Your task to perform on an android device: turn off notifications in google photos Image 0: 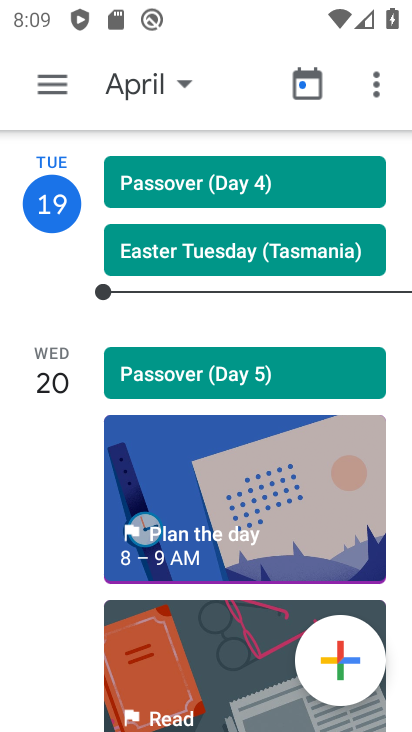
Step 0: press home button
Your task to perform on an android device: turn off notifications in google photos Image 1: 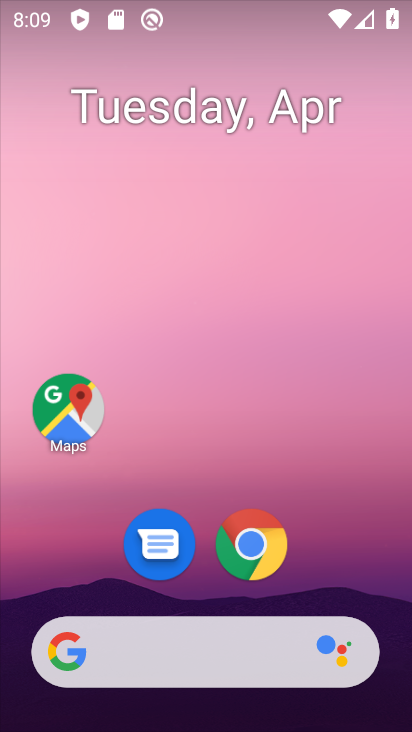
Step 1: drag from (188, 645) to (288, 0)
Your task to perform on an android device: turn off notifications in google photos Image 2: 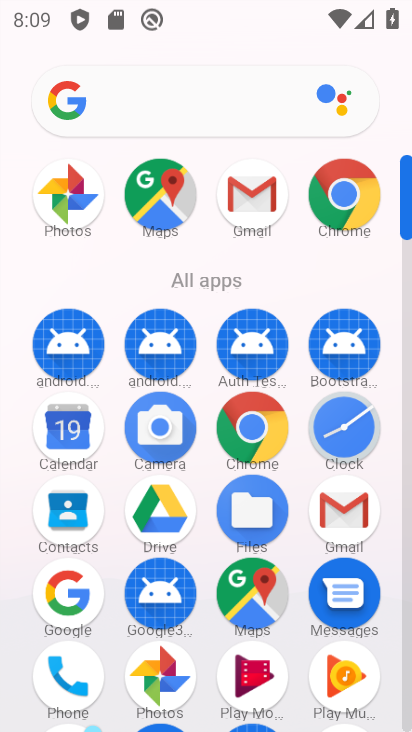
Step 2: click (58, 213)
Your task to perform on an android device: turn off notifications in google photos Image 3: 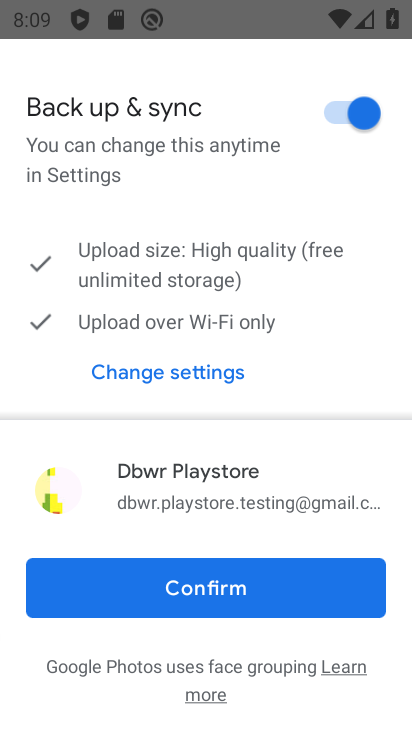
Step 3: click (223, 585)
Your task to perform on an android device: turn off notifications in google photos Image 4: 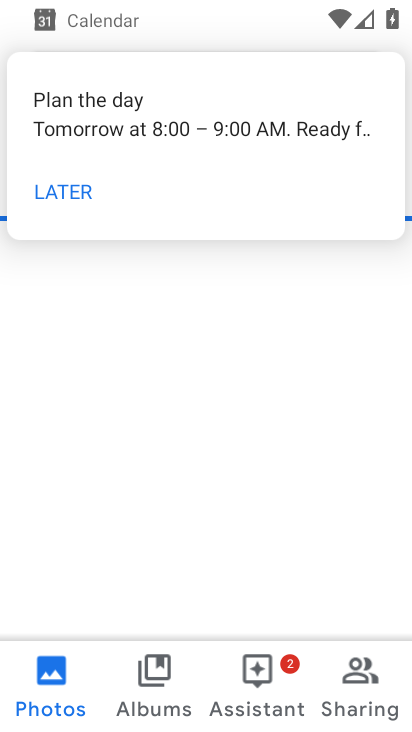
Step 4: click (77, 85)
Your task to perform on an android device: turn off notifications in google photos Image 5: 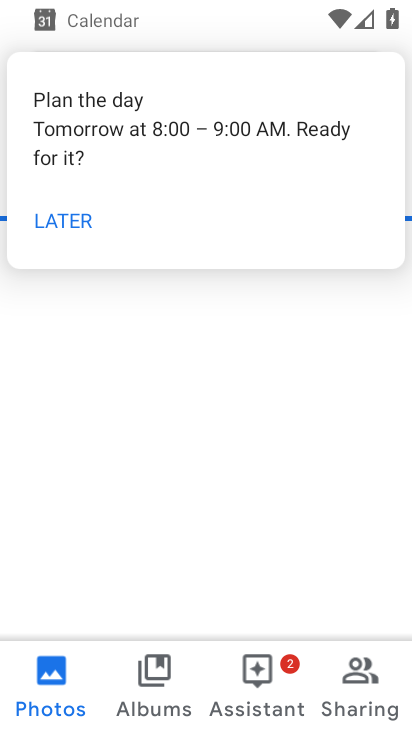
Step 5: click (55, 217)
Your task to perform on an android device: turn off notifications in google photos Image 6: 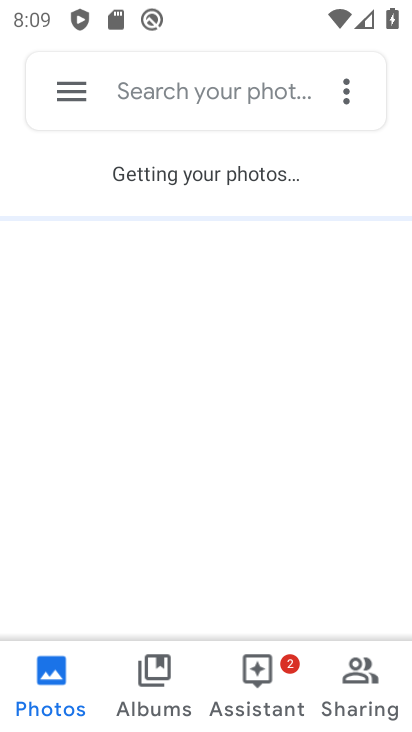
Step 6: click (66, 90)
Your task to perform on an android device: turn off notifications in google photos Image 7: 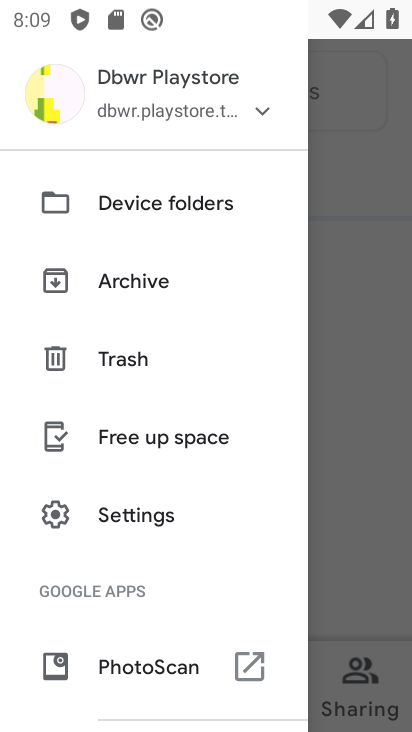
Step 7: click (111, 518)
Your task to perform on an android device: turn off notifications in google photos Image 8: 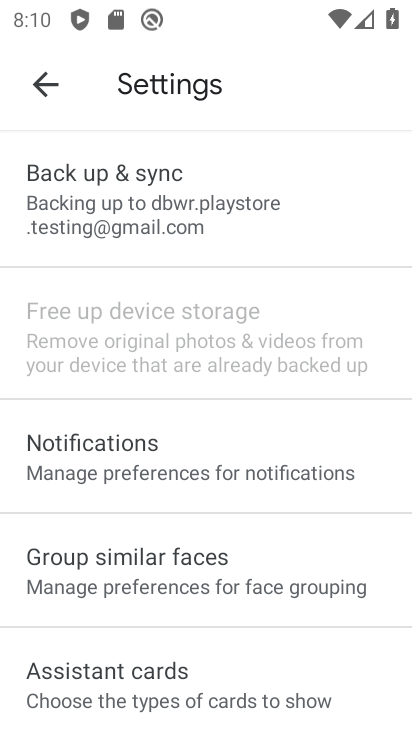
Step 8: click (149, 461)
Your task to perform on an android device: turn off notifications in google photos Image 9: 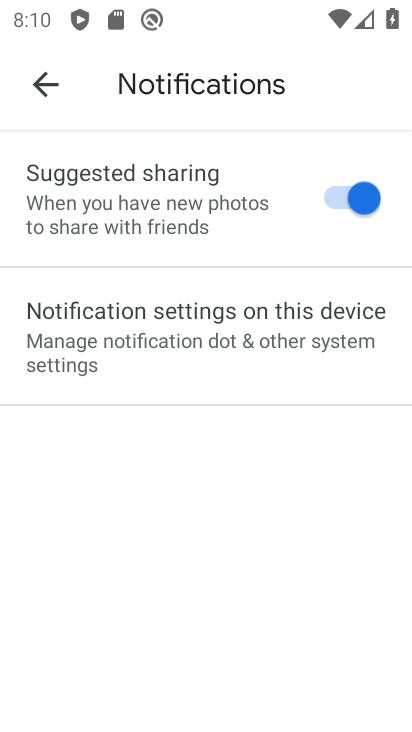
Step 9: click (197, 346)
Your task to perform on an android device: turn off notifications in google photos Image 10: 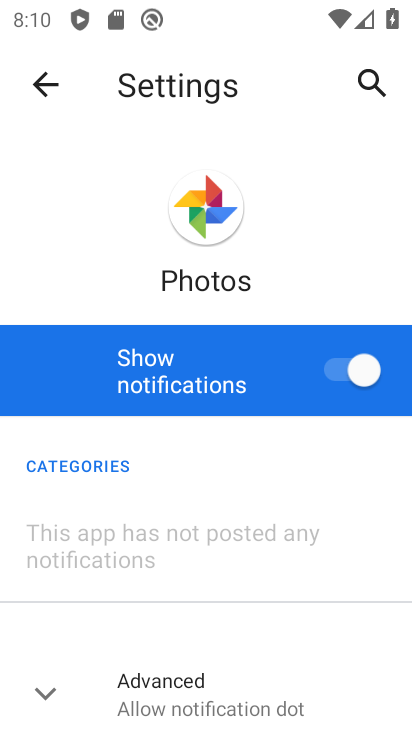
Step 10: click (340, 365)
Your task to perform on an android device: turn off notifications in google photos Image 11: 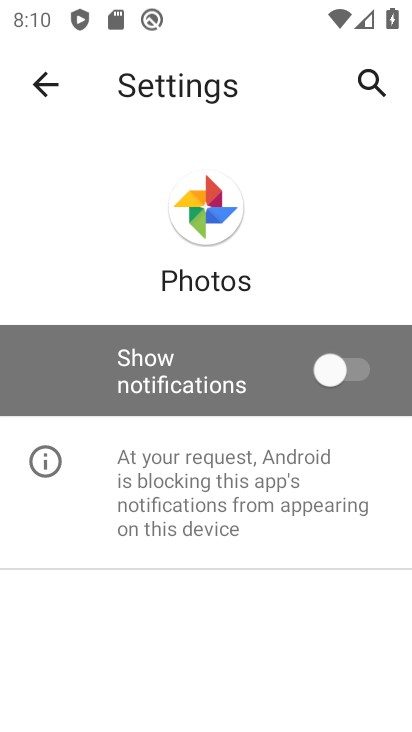
Step 11: task complete